Your task to perform on an android device: Open sound settings Image 0: 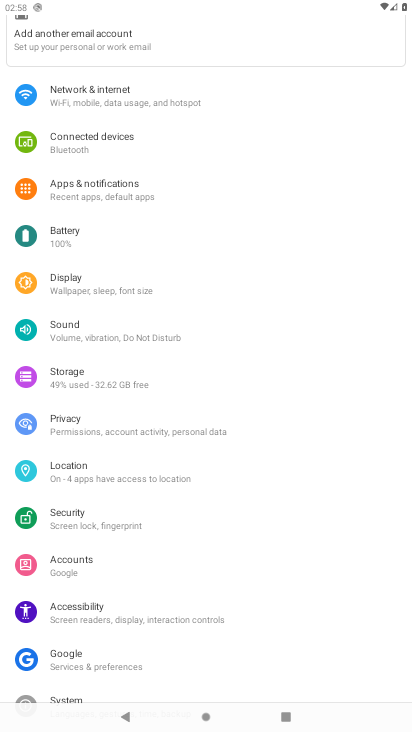
Step 0: click (70, 316)
Your task to perform on an android device: Open sound settings Image 1: 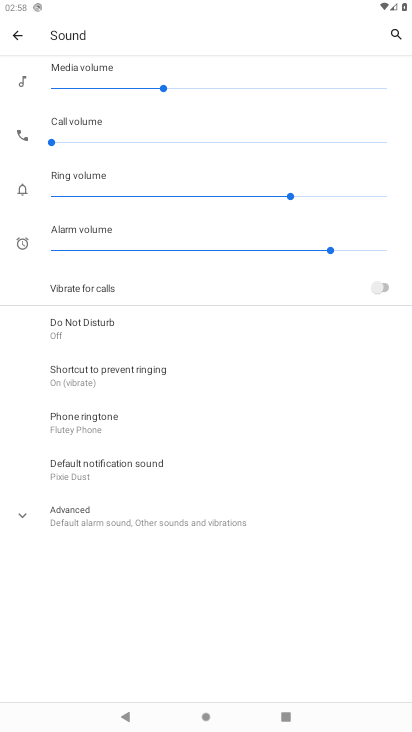
Step 1: task complete